Your task to perform on an android device: Go to internet settings Image 0: 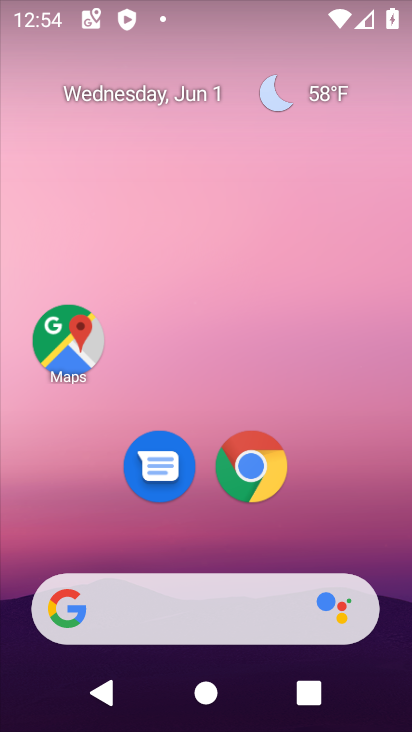
Step 0: drag from (402, 566) to (262, 188)
Your task to perform on an android device: Go to internet settings Image 1: 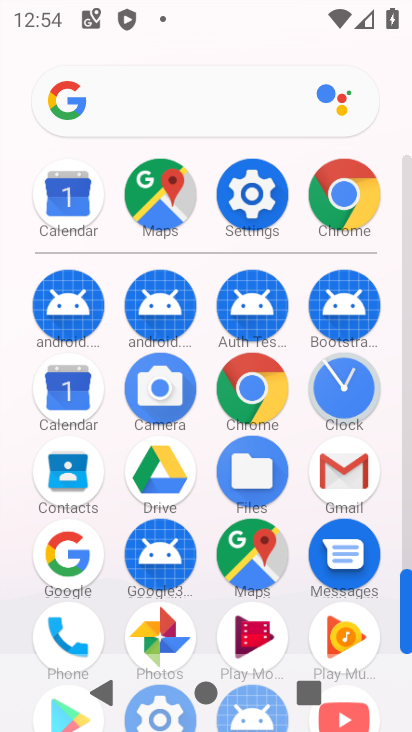
Step 1: click (236, 202)
Your task to perform on an android device: Go to internet settings Image 2: 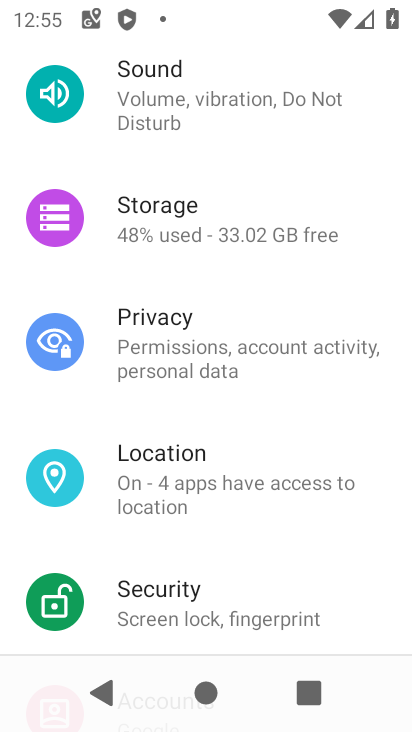
Step 2: drag from (270, 154) to (233, 540)
Your task to perform on an android device: Go to internet settings Image 3: 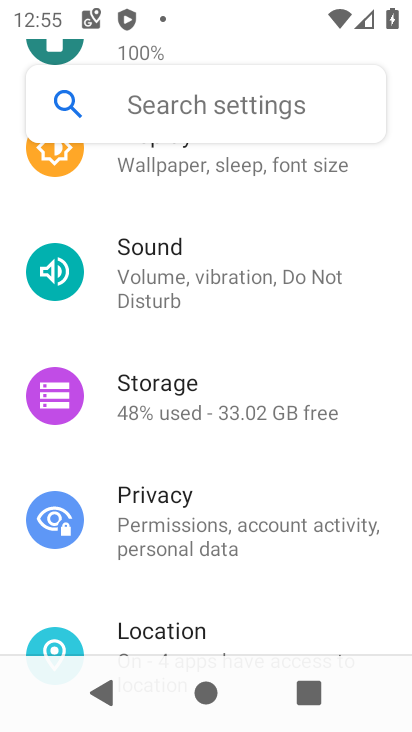
Step 3: drag from (228, 185) to (259, 617)
Your task to perform on an android device: Go to internet settings Image 4: 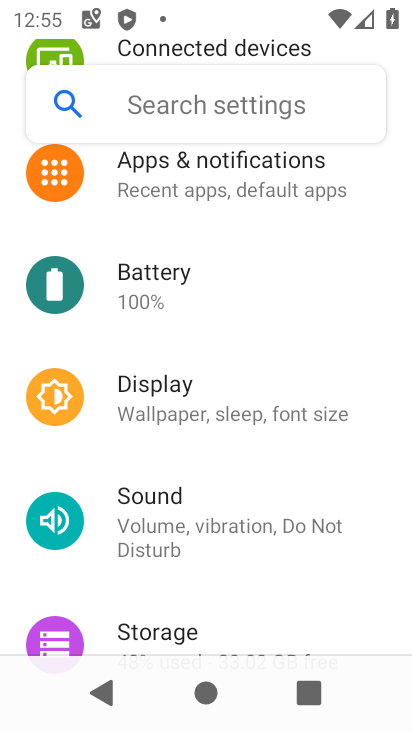
Step 4: drag from (207, 272) to (230, 642)
Your task to perform on an android device: Go to internet settings Image 5: 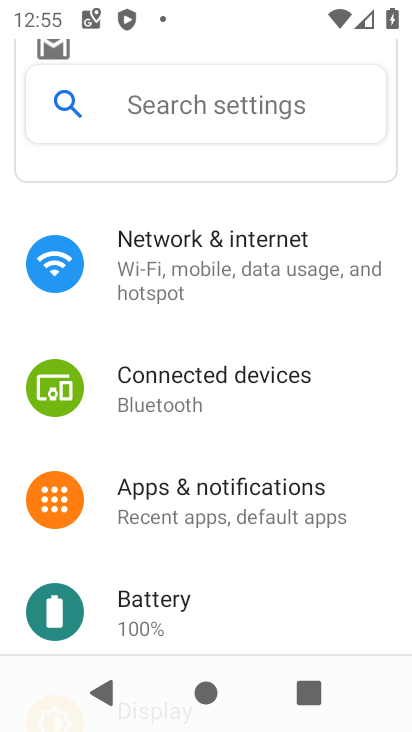
Step 5: click (209, 261)
Your task to perform on an android device: Go to internet settings Image 6: 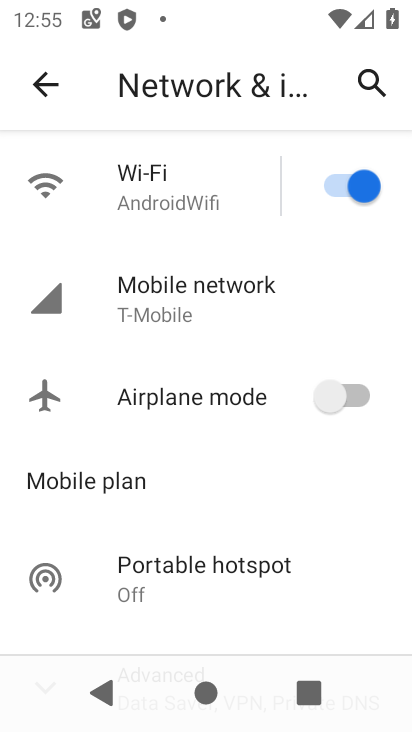
Step 6: task complete